Your task to perform on an android device: Open Wikipedia Image 0: 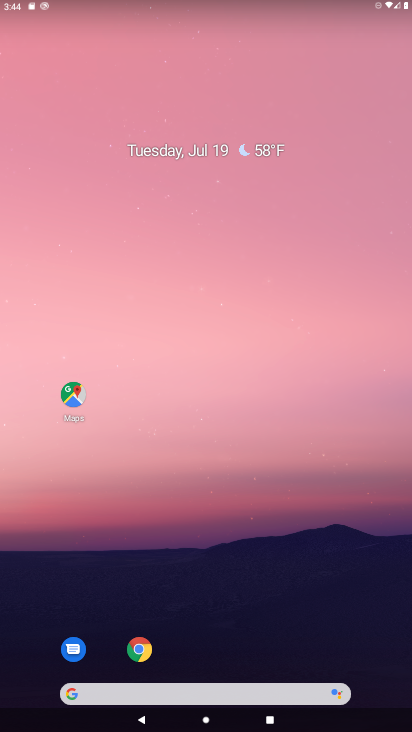
Step 0: click (140, 651)
Your task to perform on an android device: Open Wikipedia Image 1: 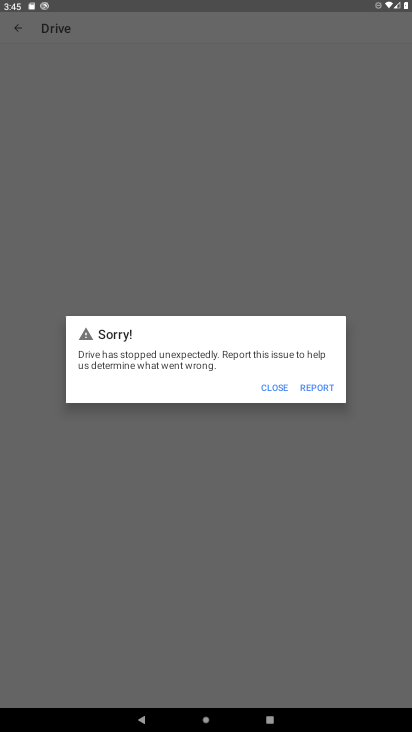
Step 1: press home button
Your task to perform on an android device: Open Wikipedia Image 2: 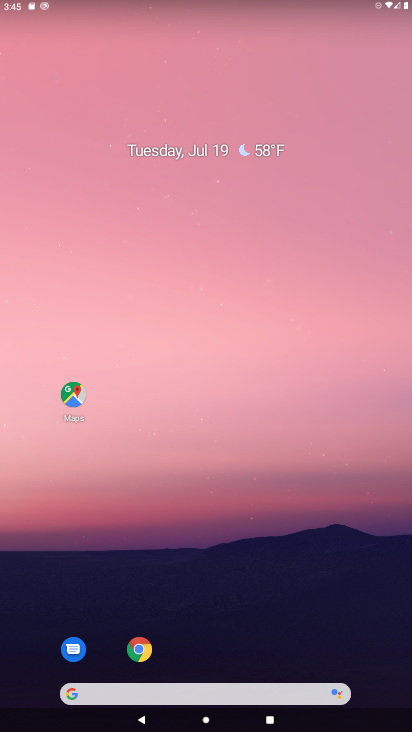
Step 2: click (141, 649)
Your task to perform on an android device: Open Wikipedia Image 3: 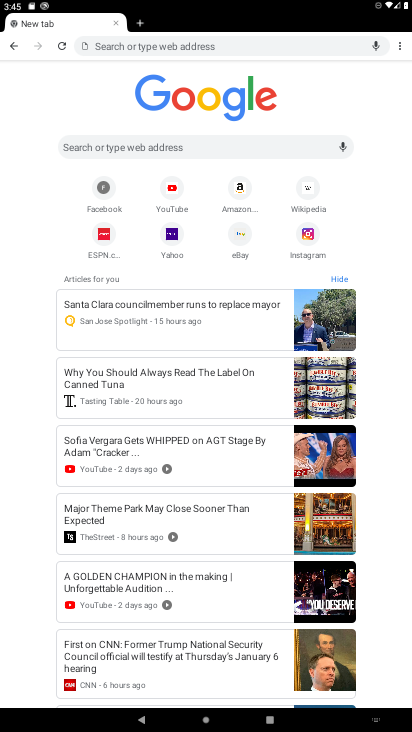
Step 3: click (306, 181)
Your task to perform on an android device: Open Wikipedia Image 4: 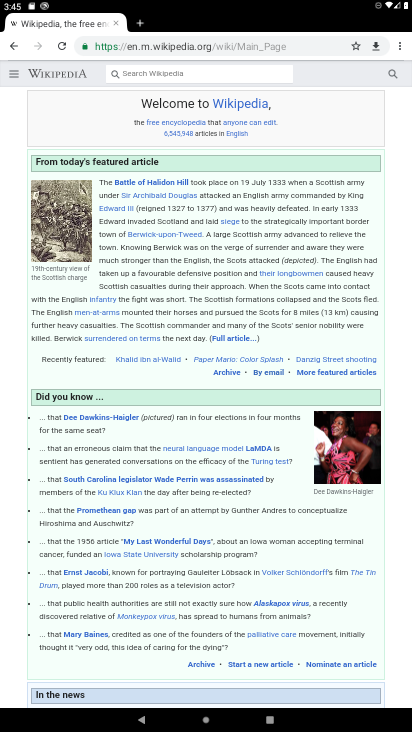
Step 4: task complete